Your task to perform on an android device: open a new tab in the chrome app Image 0: 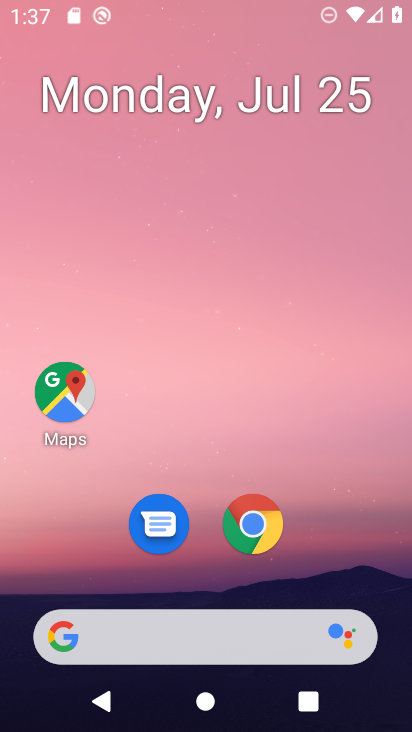
Step 0: press home button
Your task to perform on an android device: open a new tab in the chrome app Image 1: 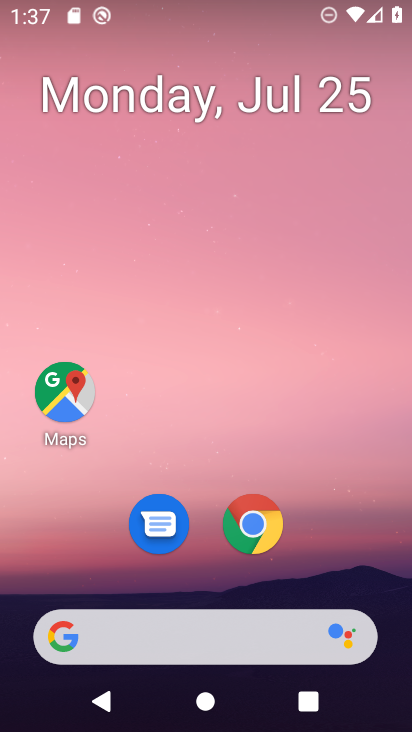
Step 1: click (257, 536)
Your task to perform on an android device: open a new tab in the chrome app Image 2: 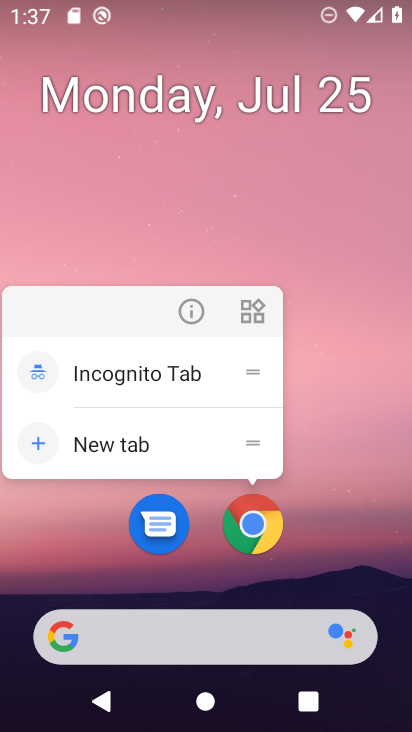
Step 2: click (248, 522)
Your task to perform on an android device: open a new tab in the chrome app Image 3: 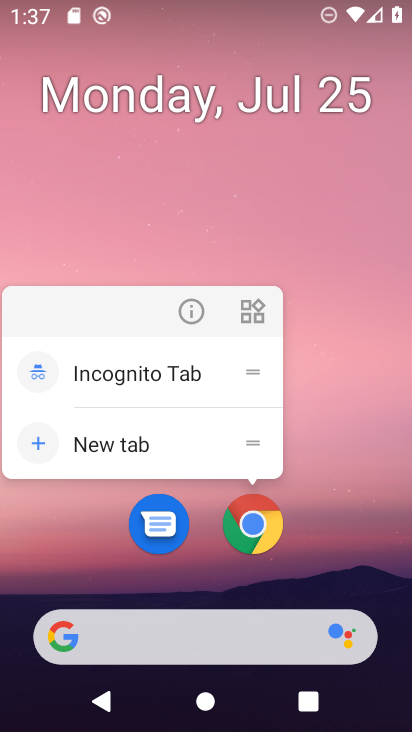
Step 3: click (248, 524)
Your task to perform on an android device: open a new tab in the chrome app Image 4: 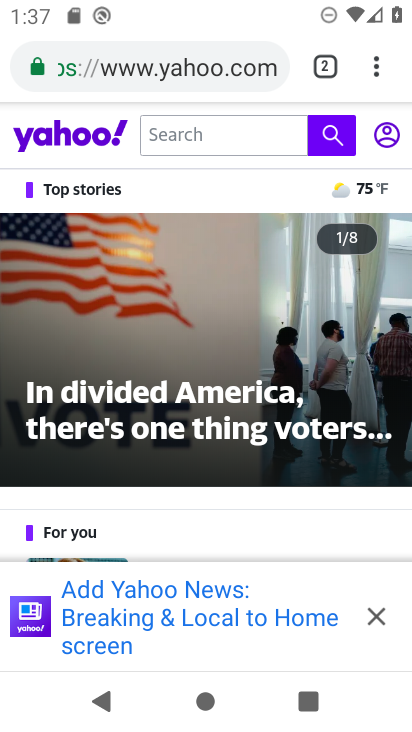
Step 4: task complete